Your task to perform on an android device: Open Google Chrome and open the bookmarks view Image 0: 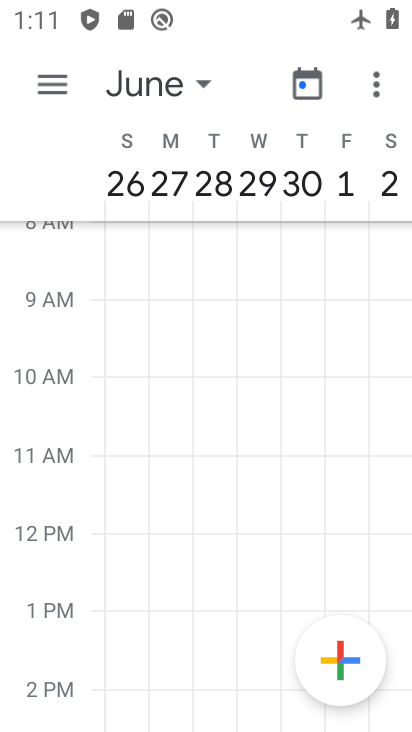
Step 0: press home button
Your task to perform on an android device: Open Google Chrome and open the bookmarks view Image 1: 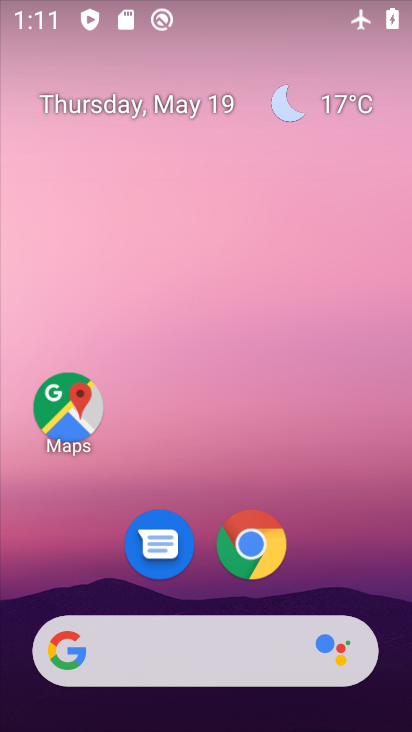
Step 1: click (249, 549)
Your task to perform on an android device: Open Google Chrome and open the bookmarks view Image 2: 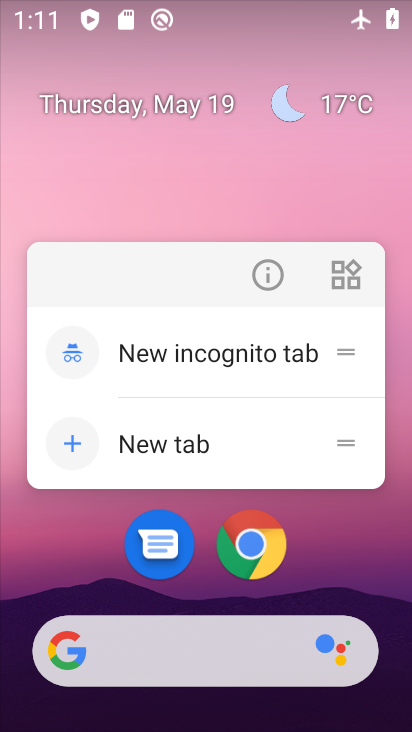
Step 2: click (274, 558)
Your task to perform on an android device: Open Google Chrome and open the bookmarks view Image 3: 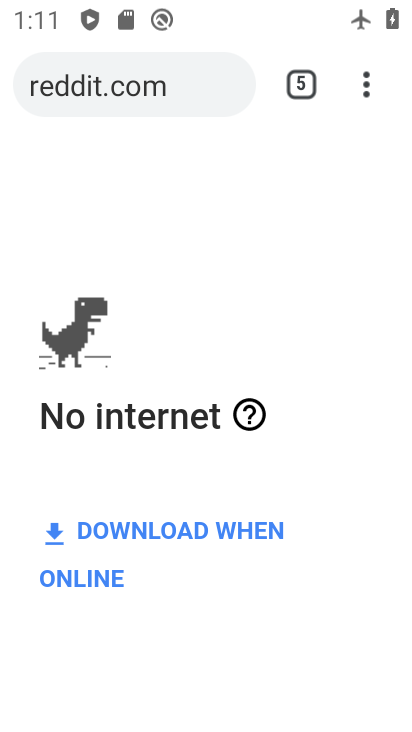
Step 3: click (369, 83)
Your task to perform on an android device: Open Google Chrome and open the bookmarks view Image 4: 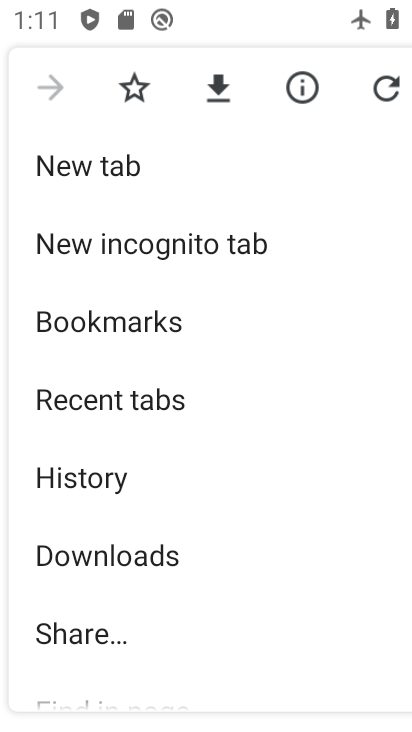
Step 4: click (109, 325)
Your task to perform on an android device: Open Google Chrome and open the bookmarks view Image 5: 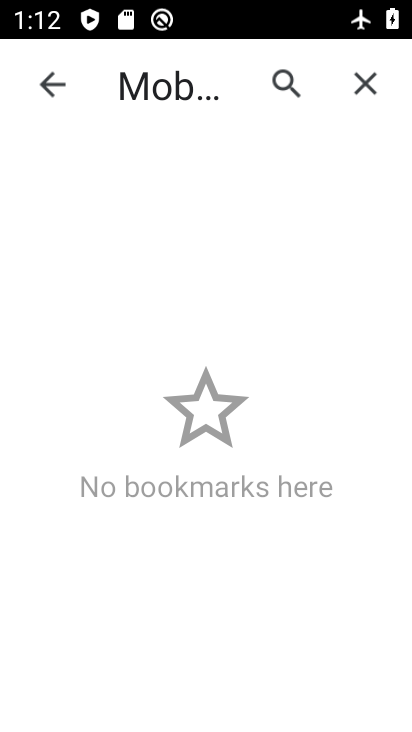
Step 5: task complete